Your task to perform on an android device: Is it going to rain tomorrow? Image 0: 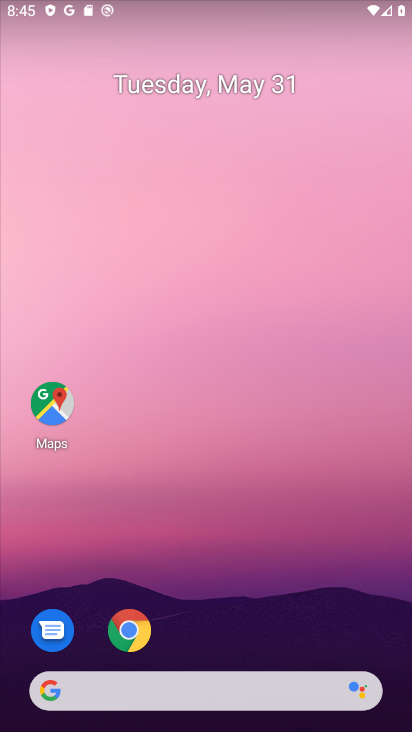
Step 0: click (140, 697)
Your task to perform on an android device: Is it going to rain tomorrow? Image 1: 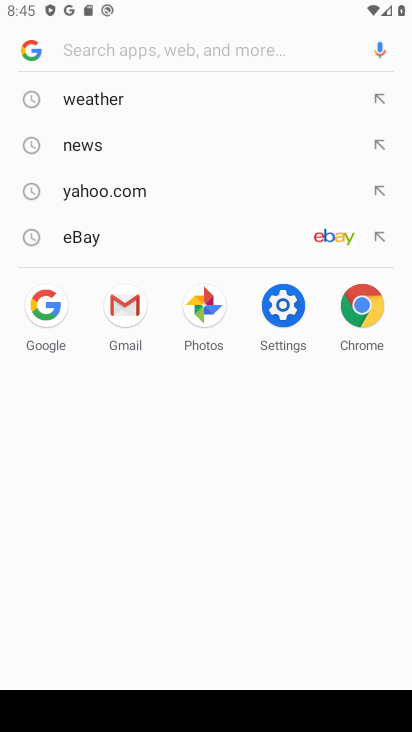
Step 1: click (154, 99)
Your task to perform on an android device: Is it going to rain tomorrow? Image 2: 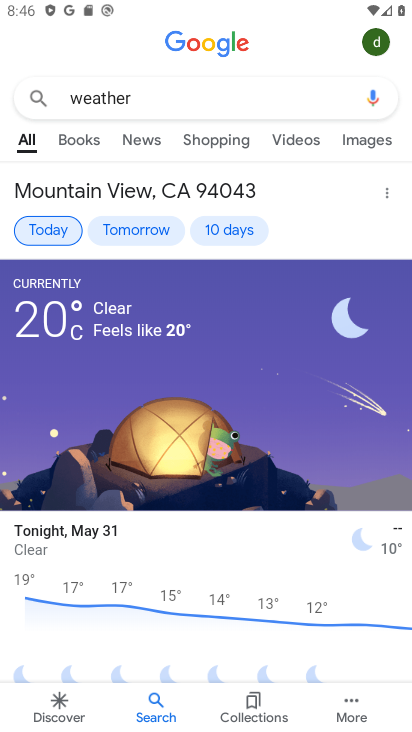
Step 2: click (136, 238)
Your task to perform on an android device: Is it going to rain tomorrow? Image 3: 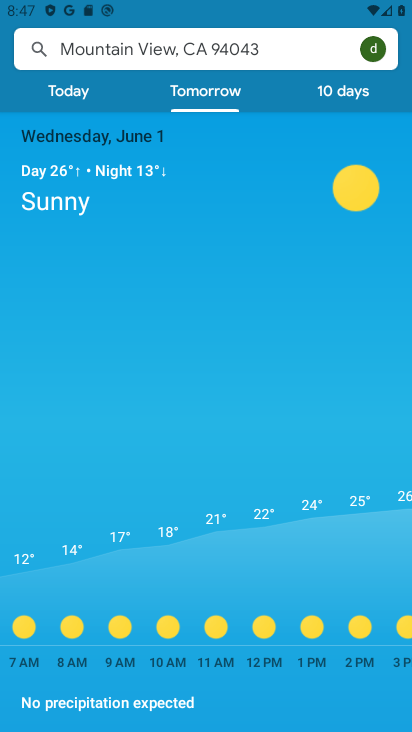
Step 3: task complete